Your task to perform on an android device: Go to notification settings Image 0: 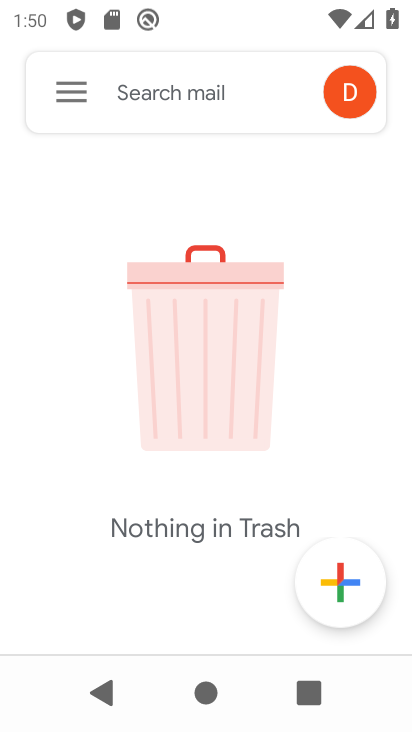
Step 0: press home button
Your task to perform on an android device: Go to notification settings Image 1: 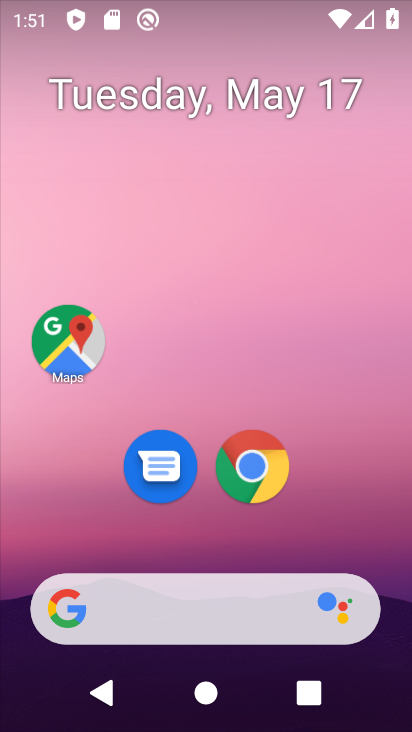
Step 1: drag from (90, 560) to (260, 38)
Your task to perform on an android device: Go to notification settings Image 2: 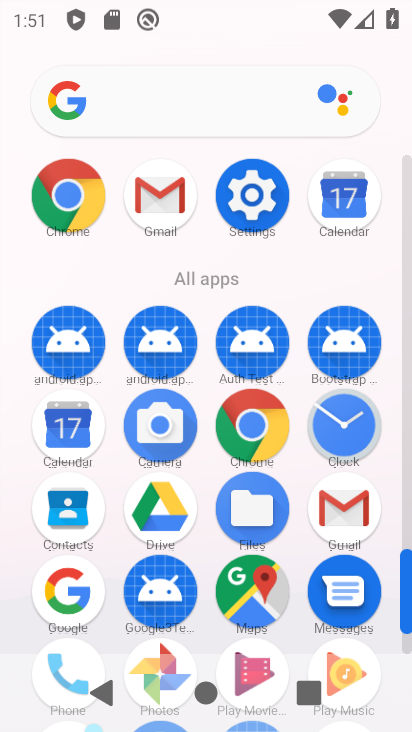
Step 2: drag from (211, 617) to (254, 419)
Your task to perform on an android device: Go to notification settings Image 3: 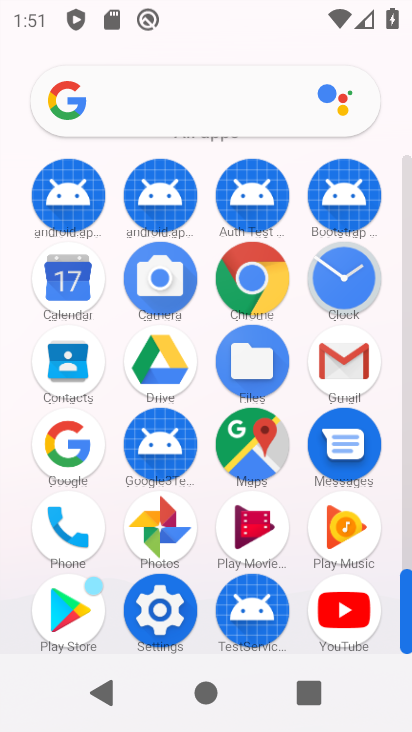
Step 3: click (165, 617)
Your task to perform on an android device: Go to notification settings Image 4: 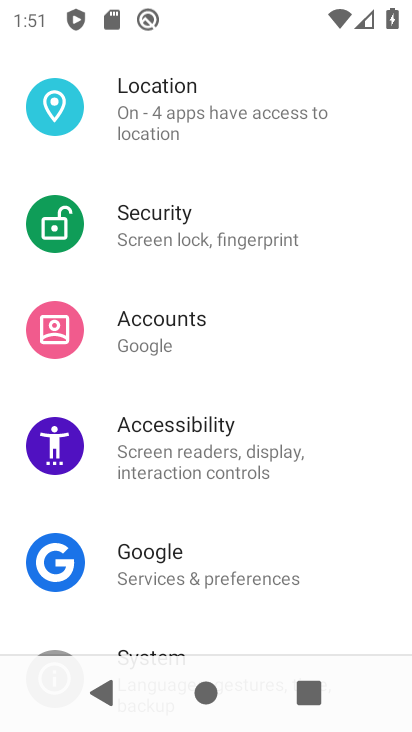
Step 4: drag from (201, 202) to (194, 598)
Your task to perform on an android device: Go to notification settings Image 5: 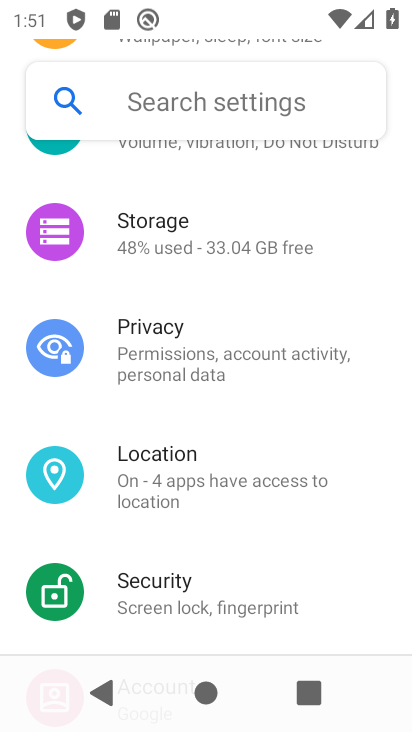
Step 5: drag from (271, 249) to (252, 580)
Your task to perform on an android device: Go to notification settings Image 6: 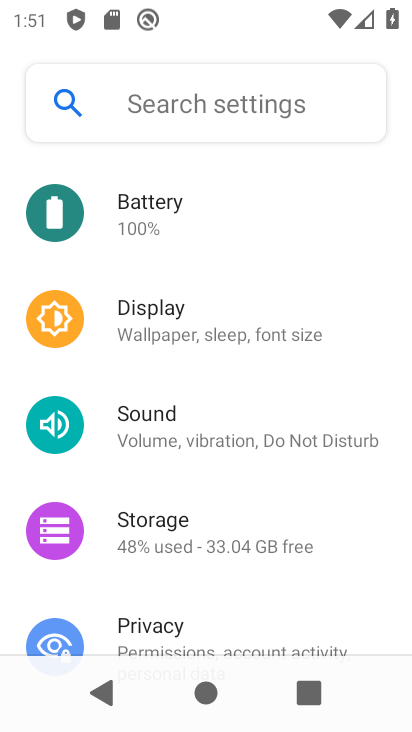
Step 6: drag from (242, 295) to (211, 605)
Your task to perform on an android device: Go to notification settings Image 7: 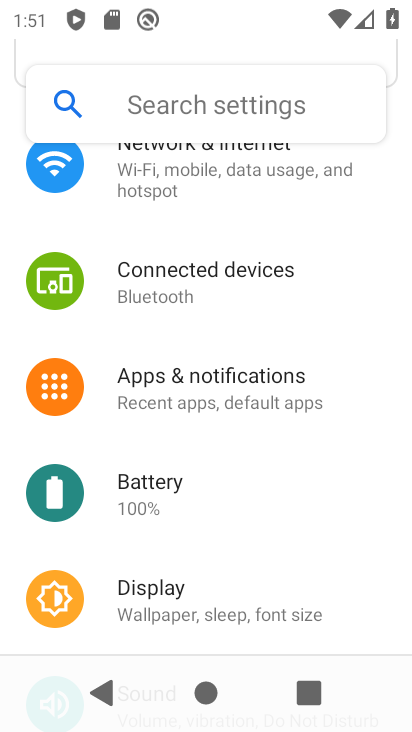
Step 7: click (229, 381)
Your task to perform on an android device: Go to notification settings Image 8: 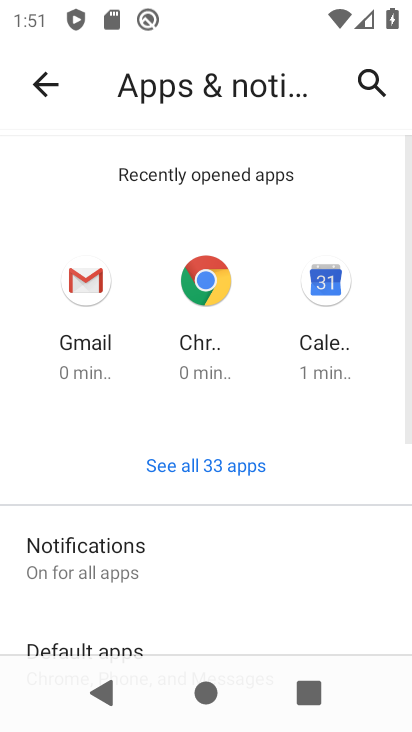
Step 8: click (210, 564)
Your task to perform on an android device: Go to notification settings Image 9: 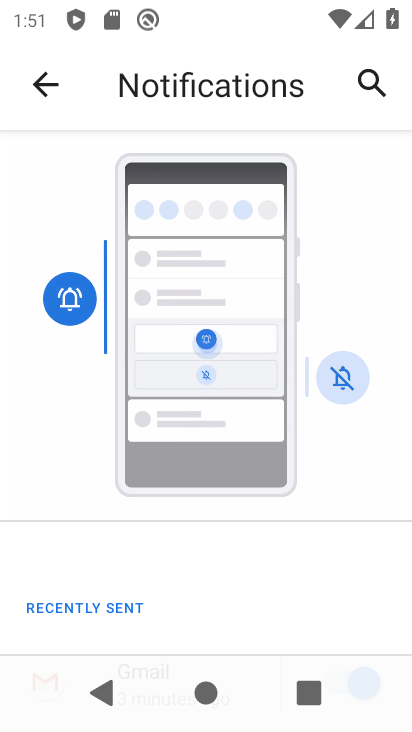
Step 9: task complete